Your task to perform on an android device: find snoozed emails in the gmail app Image 0: 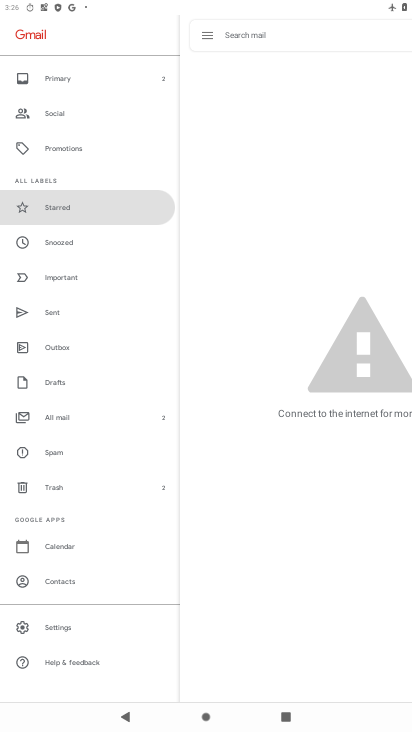
Step 0: click (70, 237)
Your task to perform on an android device: find snoozed emails in the gmail app Image 1: 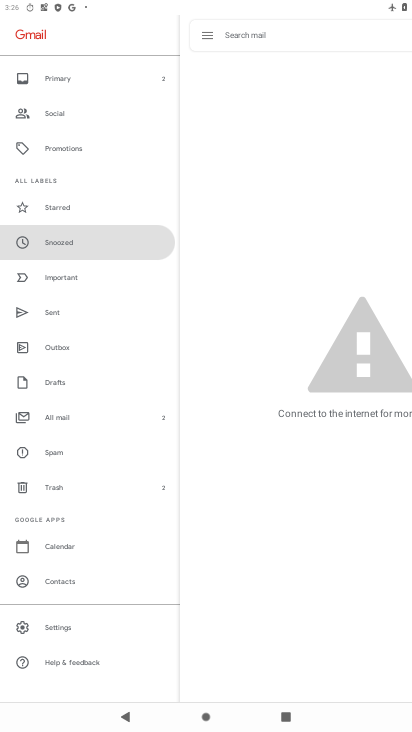
Step 1: click (59, 238)
Your task to perform on an android device: find snoozed emails in the gmail app Image 2: 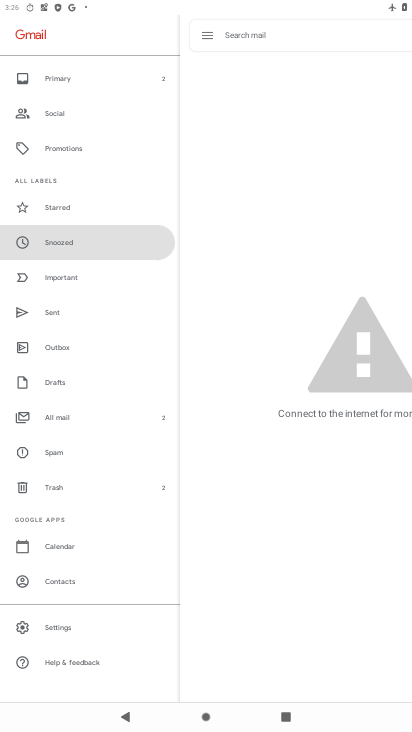
Step 2: task complete